Your task to perform on an android device: toggle notification dots Image 0: 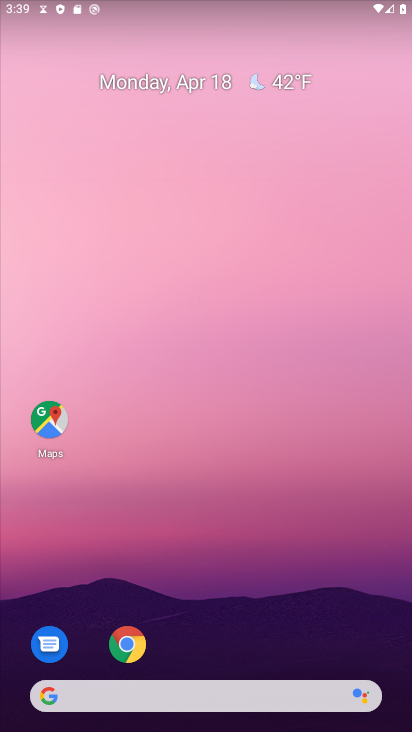
Step 0: drag from (266, 624) to (221, 86)
Your task to perform on an android device: toggle notification dots Image 1: 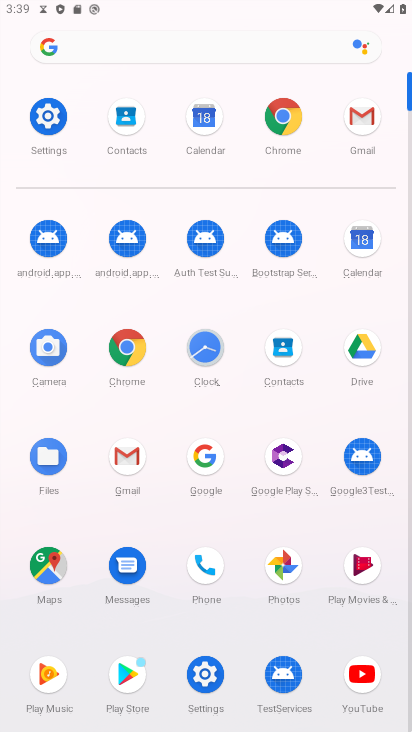
Step 1: click (48, 112)
Your task to perform on an android device: toggle notification dots Image 2: 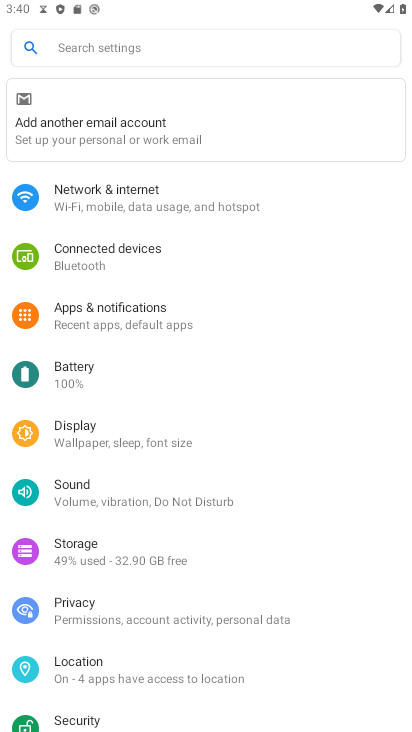
Step 2: click (137, 327)
Your task to perform on an android device: toggle notification dots Image 3: 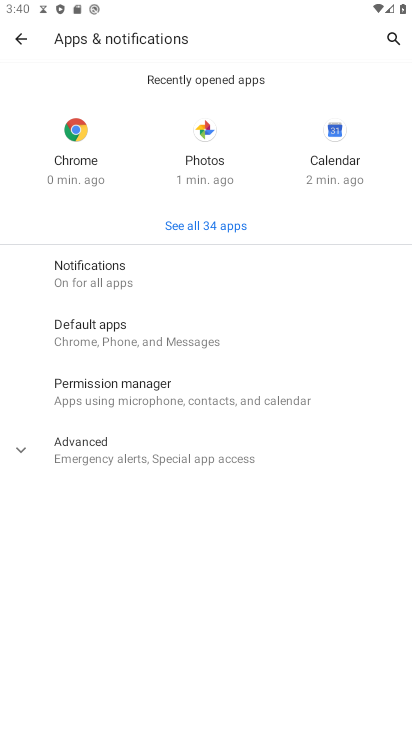
Step 3: click (99, 278)
Your task to perform on an android device: toggle notification dots Image 4: 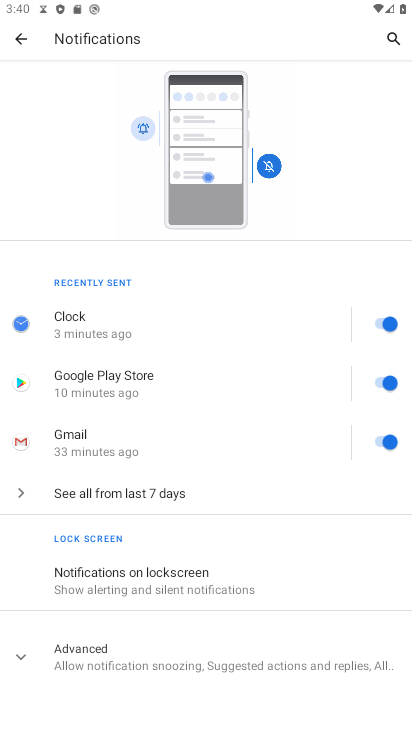
Step 4: drag from (266, 575) to (258, 188)
Your task to perform on an android device: toggle notification dots Image 5: 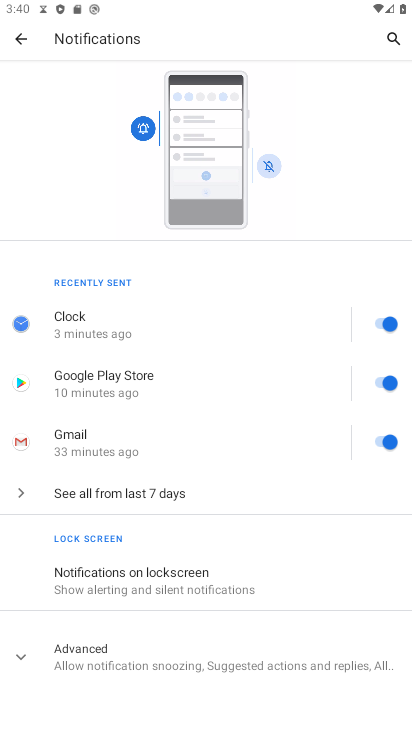
Step 5: click (257, 645)
Your task to perform on an android device: toggle notification dots Image 6: 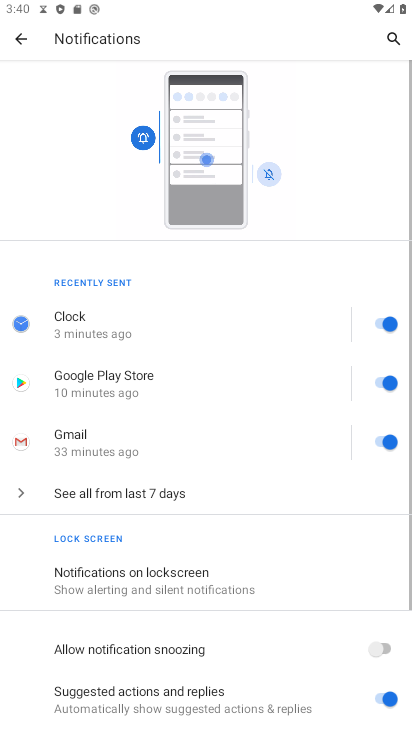
Step 6: drag from (246, 591) to (226, 238)
Your task to perform on an android device: toggle notification dots Image 7: 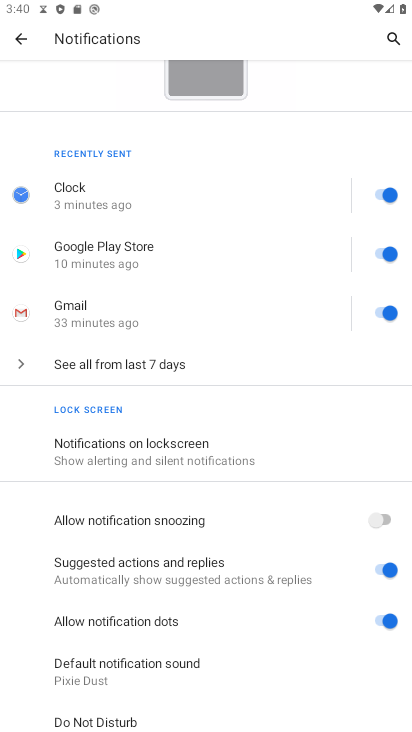
Step 7: click (377, 617)
Your task to perform on an android device: toggle notification dots Image 8: 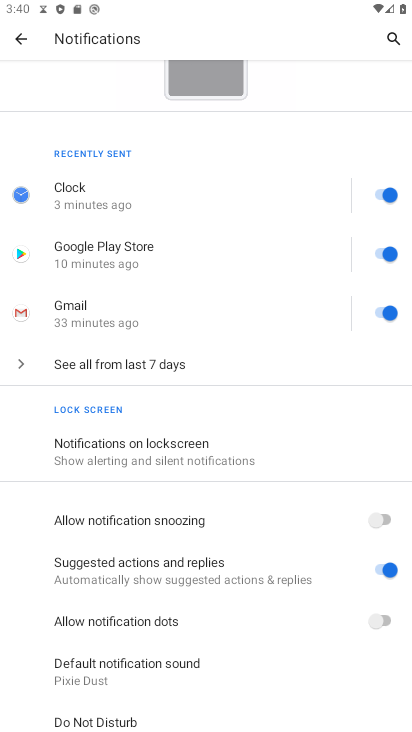
Step 8: task complete